Your task to perform on an android device: turn off notifications settings in the gmail app Image 0: 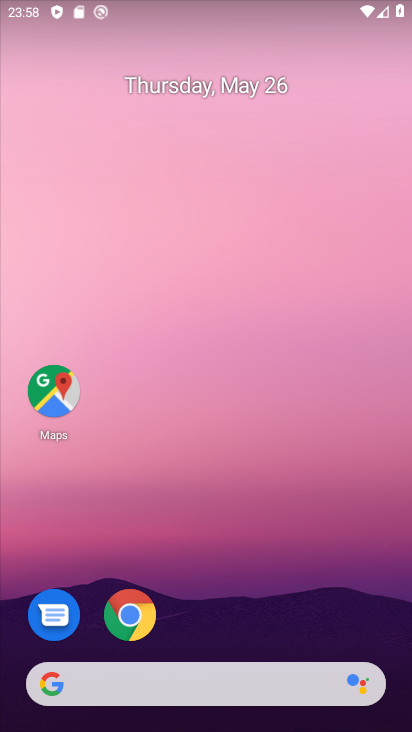
Step 0: drag from (245, 624) to (227, 1)
Your task to perform on an android device: turn off notifications settings in the gmail app Image 1: 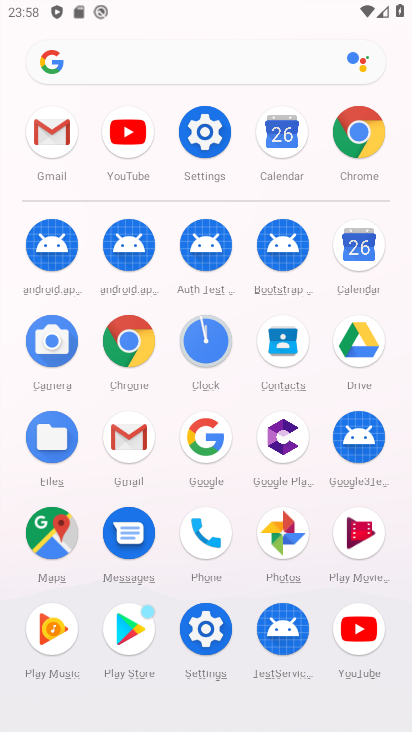
Step 1: click (60, 151)
Your task to perform on an android device: turn off notifications settings in the gmail app Image 2: 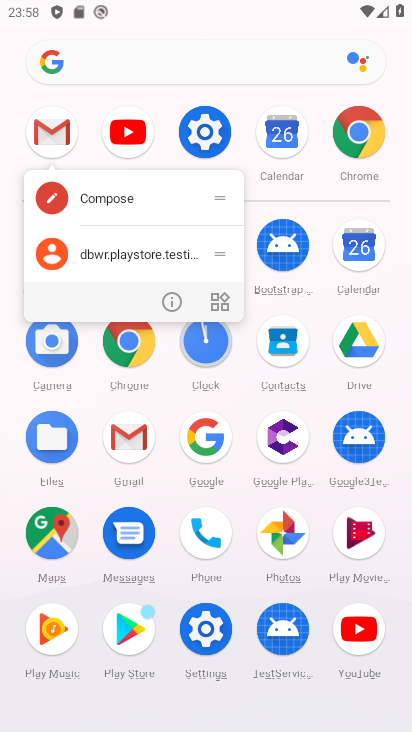
Step 2: click (152, 298)
Your task to perform on an android device: turn off notifications settings in the gmail app Image 3: 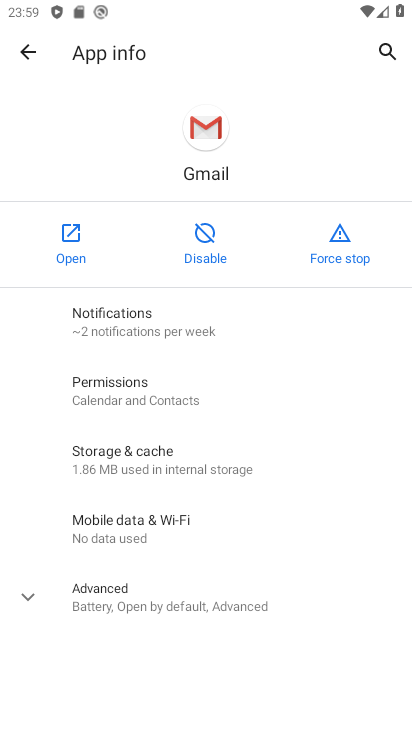
Step 3: click (101, 321)
Your task to perform on an android device: turn off notifications settings in the gmail app Image 4: 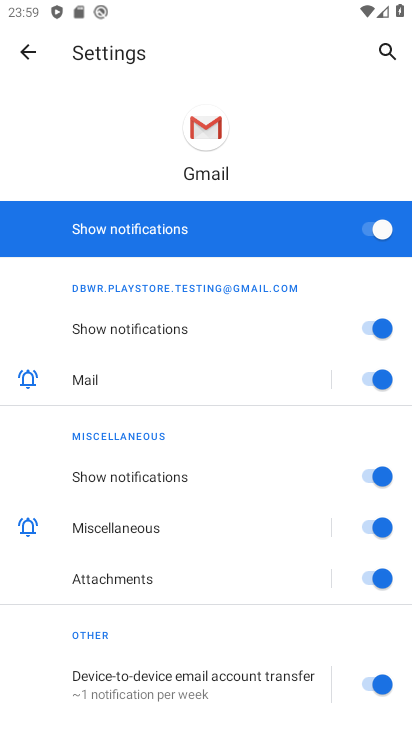
Step 4: click (363, 233)
Your task to perform on an android device: turn off notifications settings in the gmail app Image 5: 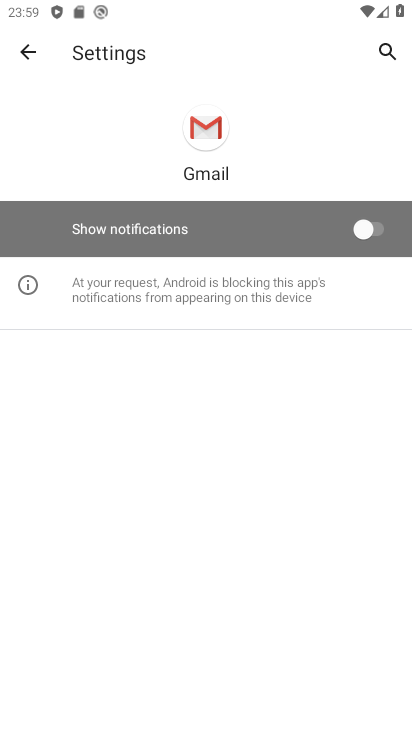
Step 5: task complete